Your task to perform on an android device: Is it going to rain tomorrow? Image 0: 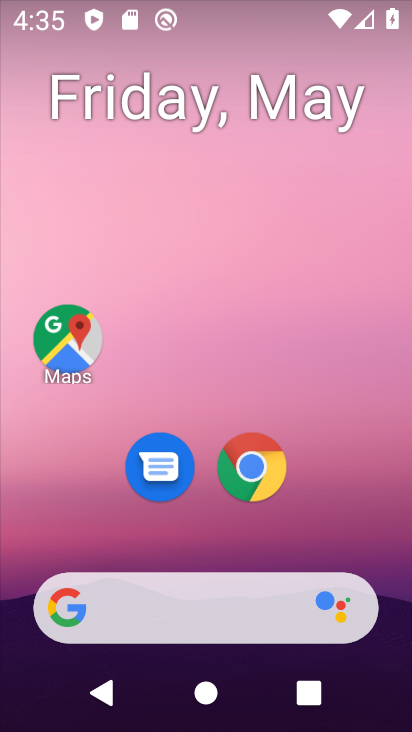
Step 0: click (228, 602)
Your task to perform on an android device: Is it going to rain tomorrow? Image 1: 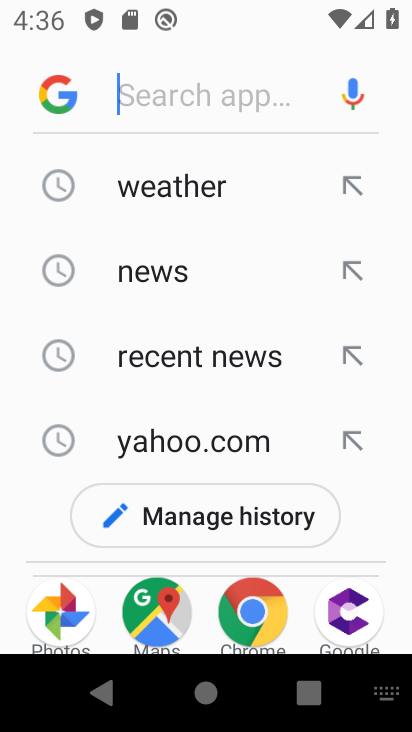
Step 1: click (166, 172)
Your task to perform on an android device: Is it going to rain tomorrow? Image 2: 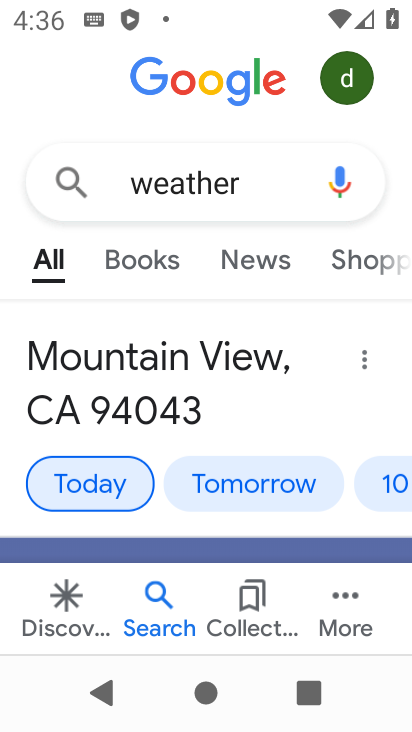
Step 2: click (230, 478)
Your task to perform on an android device: Is it going to rain tomorrow? Image 3: 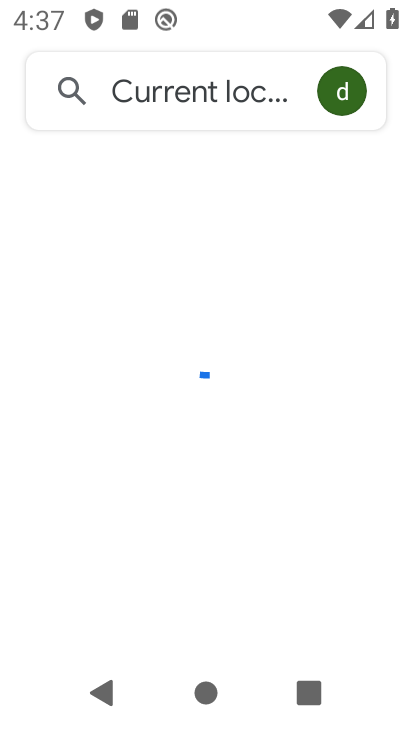
Step 3: press home button
Your task to perform on an android device: Is it going to rain tomorrow? Image 4: 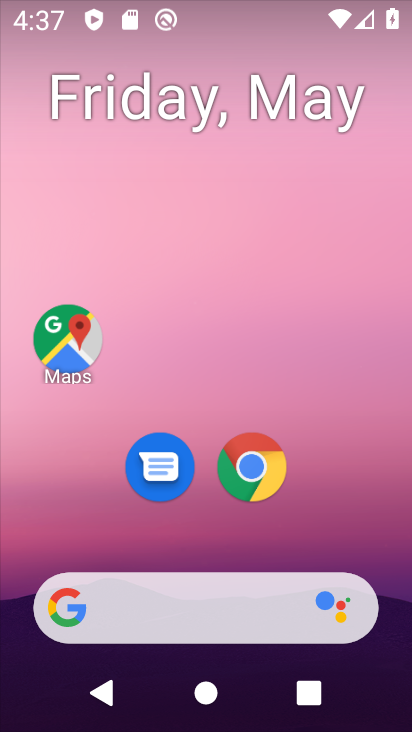
Step 4: click (146, 606)
Your task to perform on an android device: Is it going to rain tomorrow? Image 5: 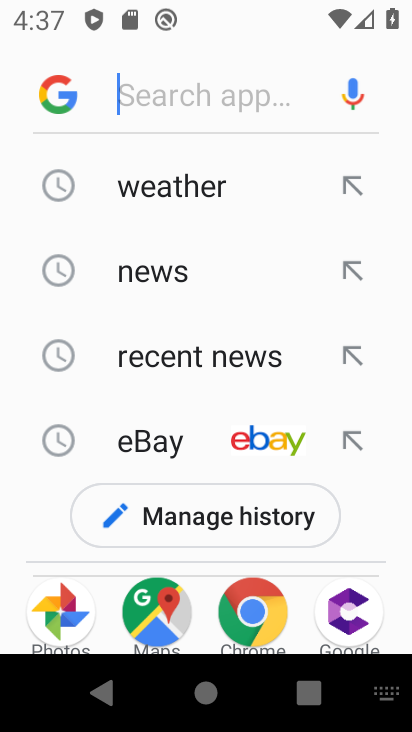
Step 5: click (188, 214)
Your task to perform on an android device: Is it going to rain tomorrow? Image 6: 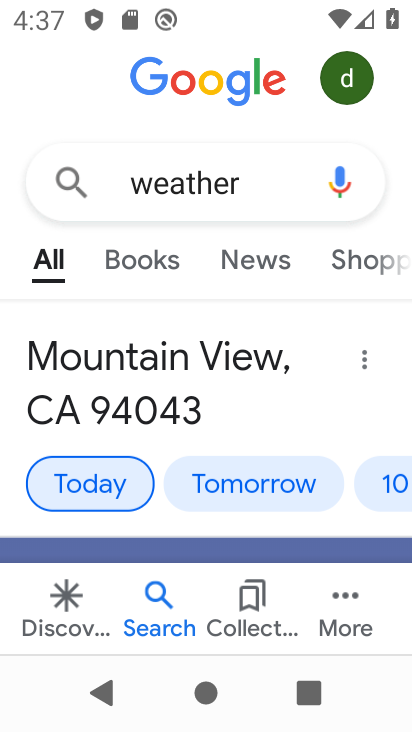
Step 6: click (280, 475)
Your task to perform on an android device: Is it going to rain tomorrow? Image 7: 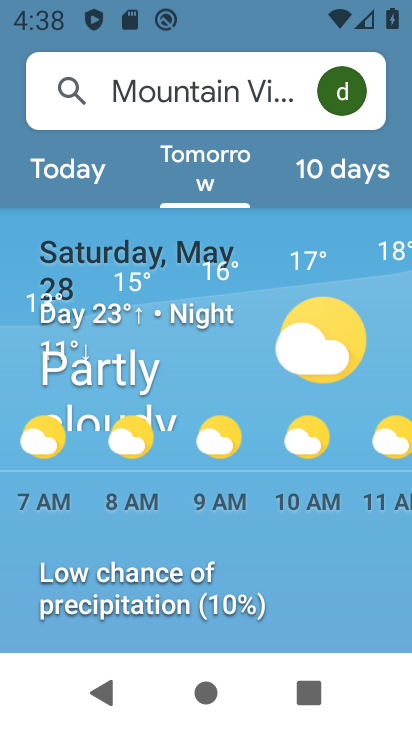
Step 7: click (321, 527)
Your task to perform on an android device: Is it going to rain tomorrow? Image 8: 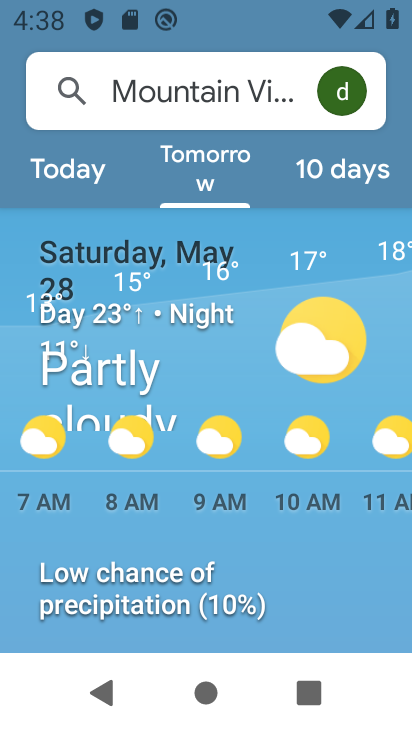
Step 8: drag from (193, 533) to (8, 521)
Your task to perform on an android device: Is it going to rain tomorrow? Image 9: 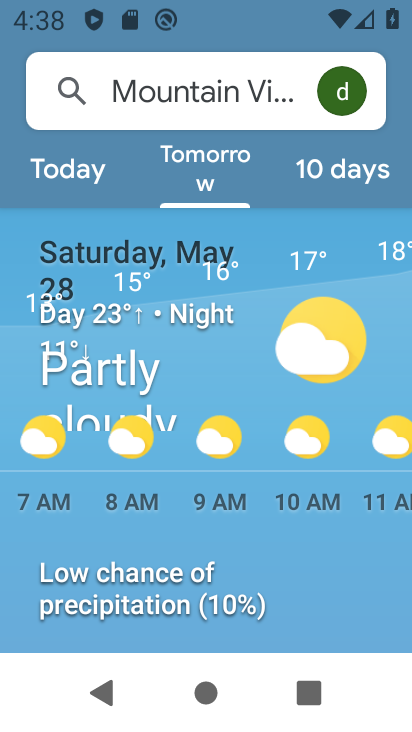
Step 9: drag from (363, 518) to (27, 531)
Your task to perform on an android device: Is it going to rain tomorrow? Image 10: 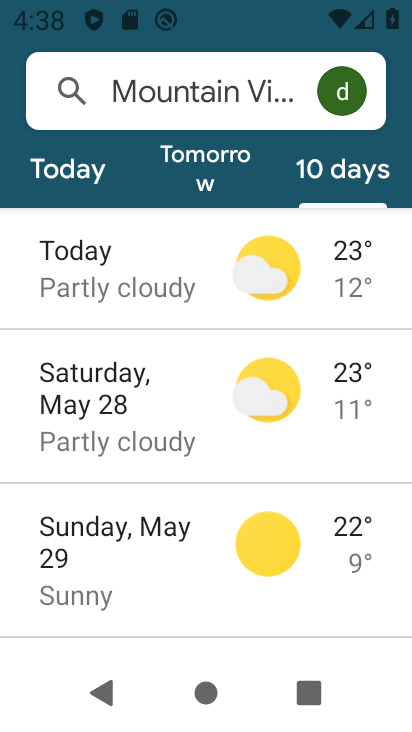
Step 10: click (187, 178)
Your task to perform on an android device: Is it going to rain tomorrow? Image 11: 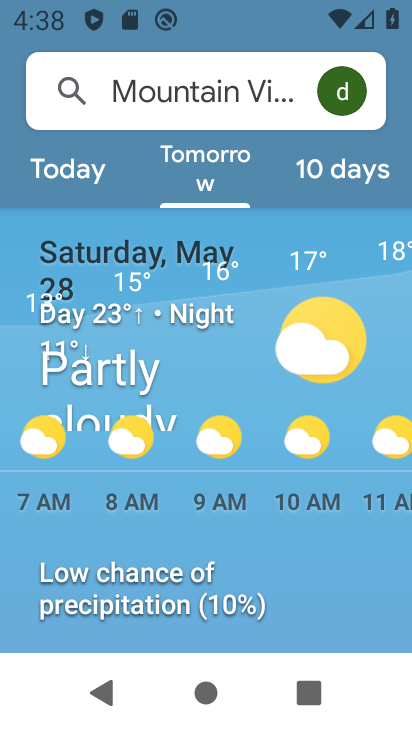
Step 11: task complete